Your task to perform on an android device: Go to privacy settings Image 0: 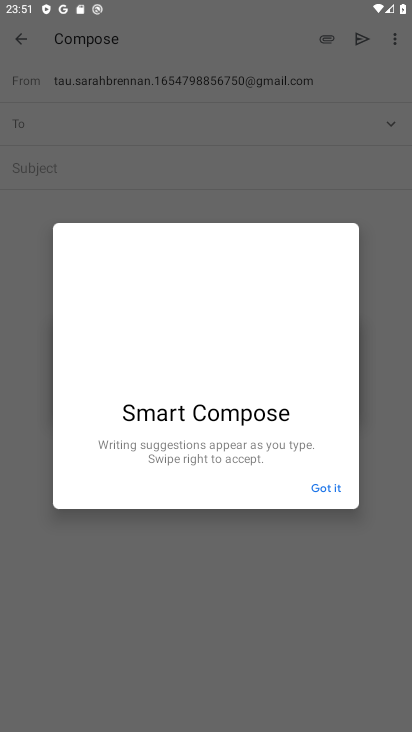
Step 0: press home button
Your task to perform on an android device: Go to privacy settings Image 1: 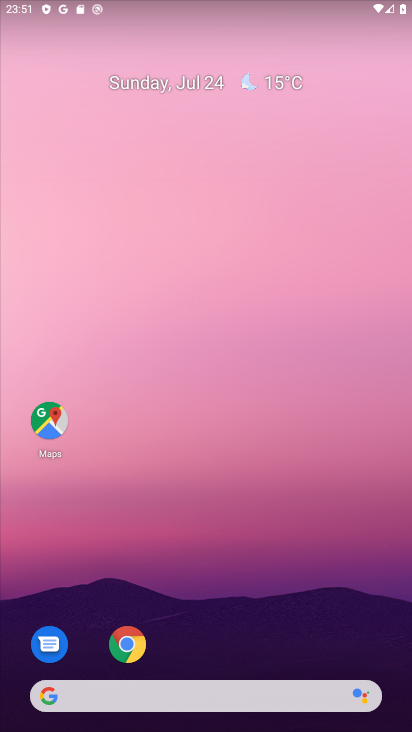
Step 1: press home button
Your task to perform on an android device: Go to privacy settings Image 2: 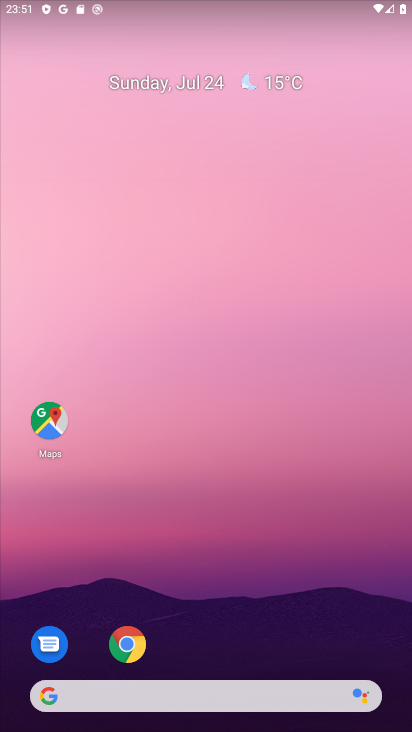
Step 2: drag from (201, 699) to (213, 114)
Your task to perform on an android device: Go to privacy settings Image 3: 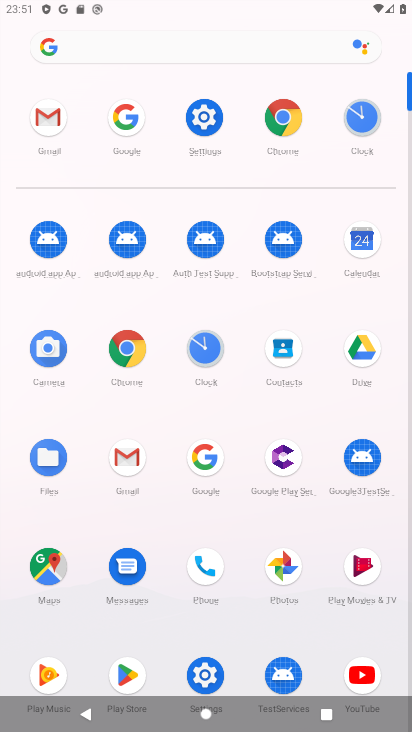
Step 3: click (201, 124)
Your task to perform on an android device: Go to privacy settings Image 4: 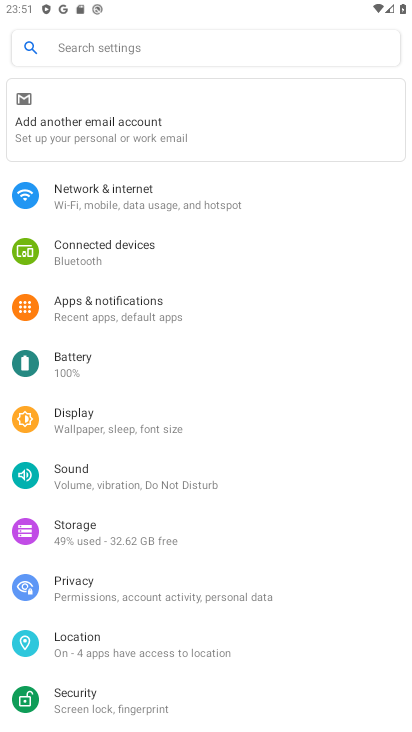
Step 4: click (84, 587)
Your task to perform on an android device: Go to privacy settings Image 5: 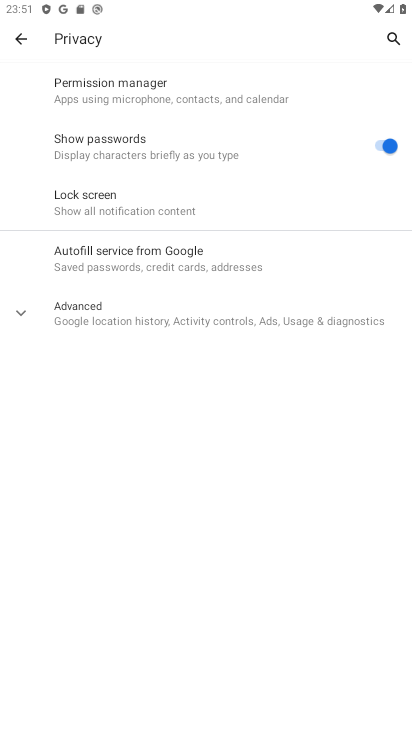
Step 5: task complete